Your task to perform on an android device: Open Google Maps Image 0: 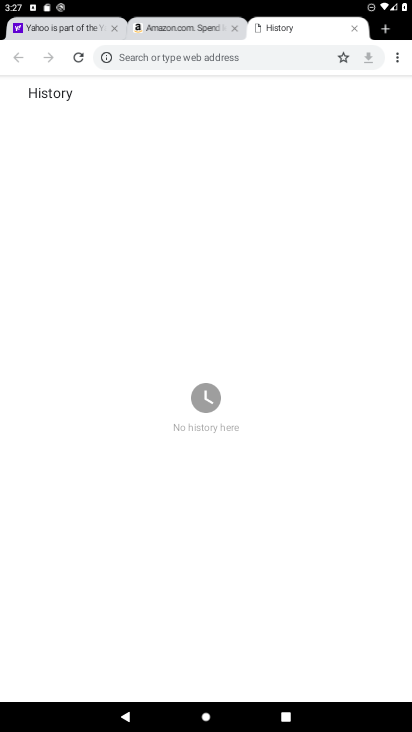
Step 0: press home button
Your task to perform on an android device: Open Google Maps Image 1: 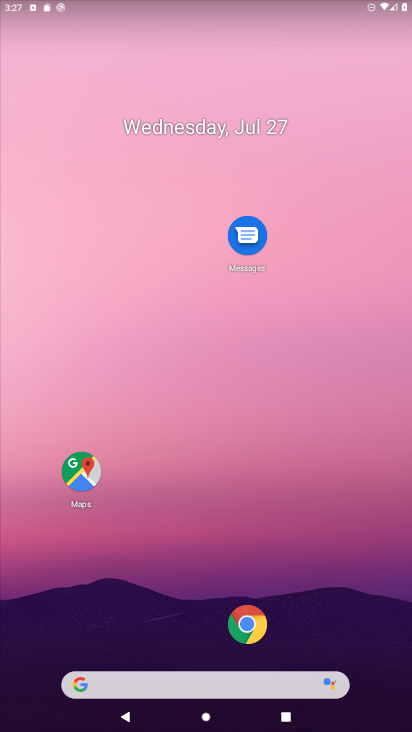
Step 1: click (80, 483)
Your task to perform on an android device: Open Google Maps Image 2: 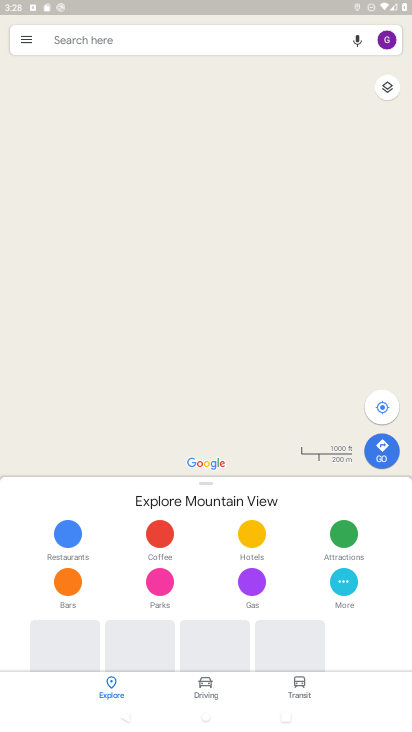
Step 2: task complete